Your task to perform on an android device: Open Wikipedia Image 0: 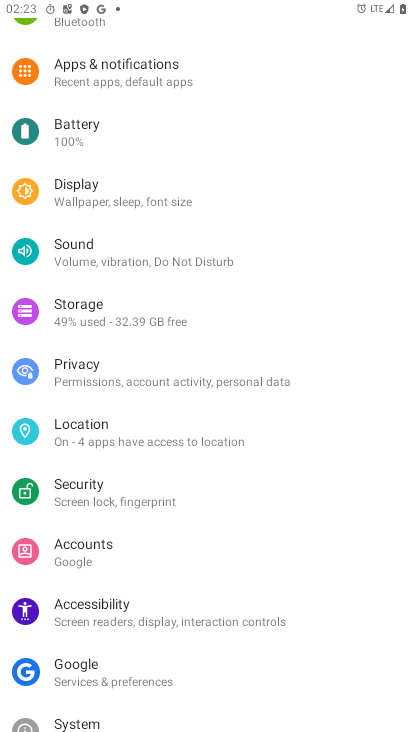
Step 0: press home button
Your task to perform on an android device: Open Wikipedia Image 1: 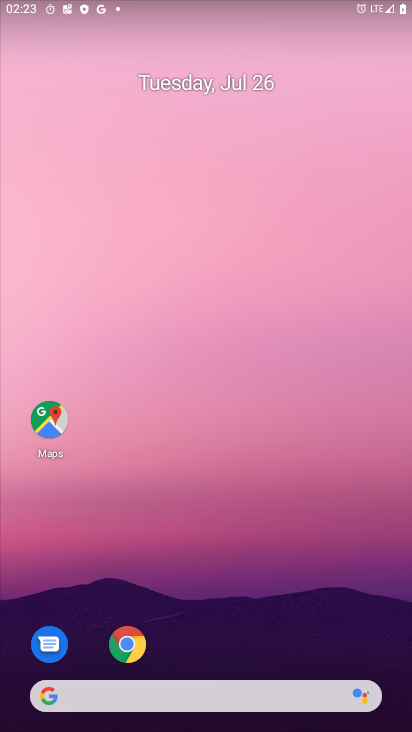
Step 1: click (128, 648)
Your task to perform on an android device: Open Wikipedia Image 2: 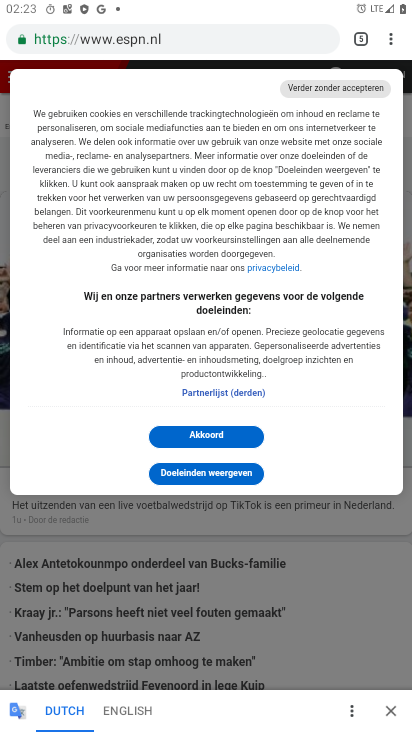
Step 2: click (165, 40)
Your task to perform on an android device: Open Wikipedia Image 3: 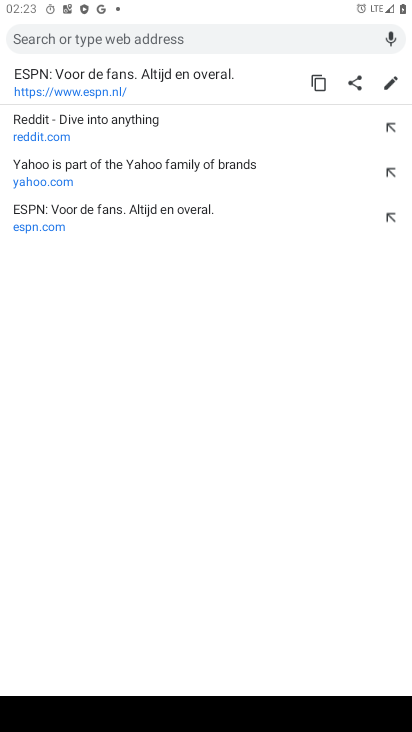
Step 3: type "wikipedia"
Your task to perform on an android device: Open Wikipedia Image 4: 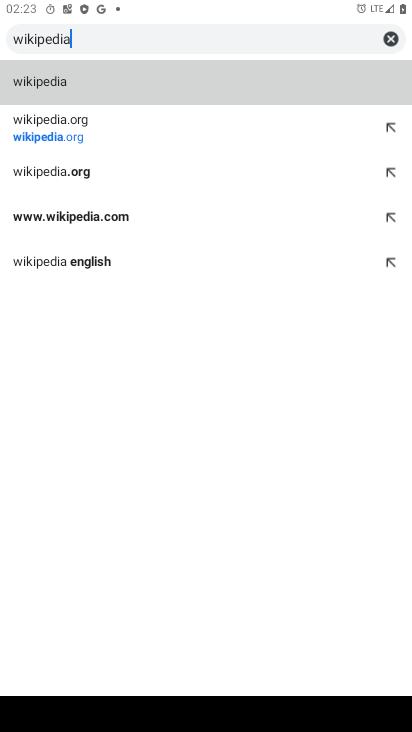
Step 4: click (57, 91)
Your task to perform on an android device: Open Wikipedia Image 5: 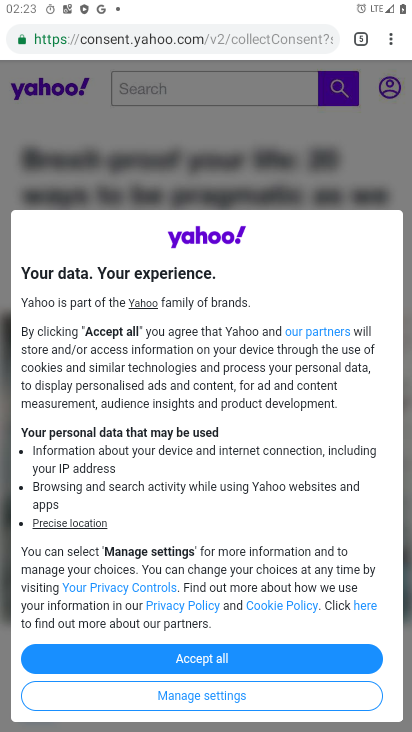
Step 5: click (166, 653)
Your task to perform on an android device: Open Wikipedia Image 6: 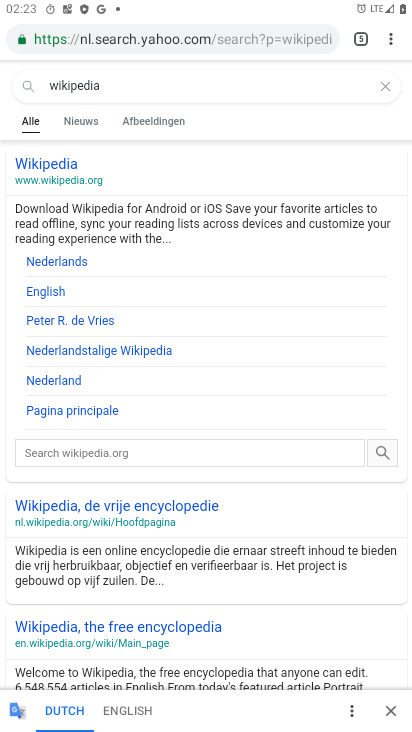
Step 6: click (62, 174)
Your task to perform on an android device: Open Wikipedia Image 7: 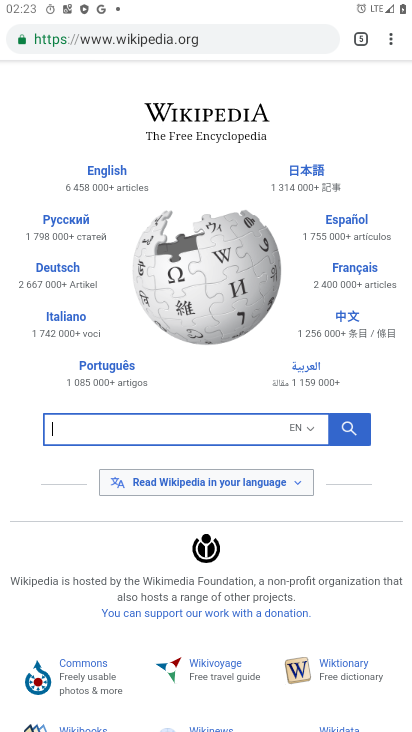
Step 7: task complete